Your task to perform on an android device: check out phone information Image 0: 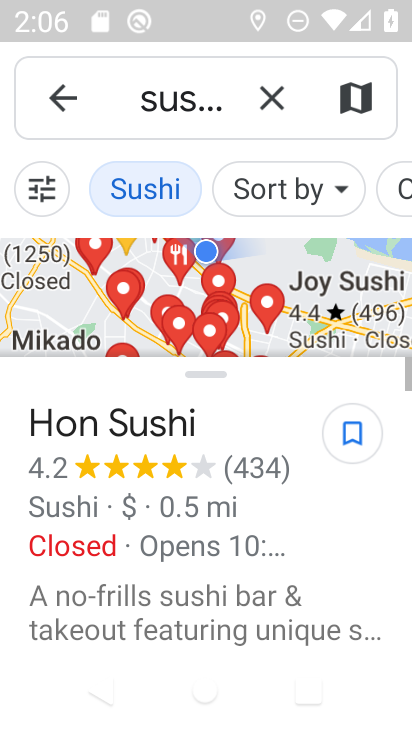
Step 0: press home button
Your task to perform on an android device: check out phone information Image 1: 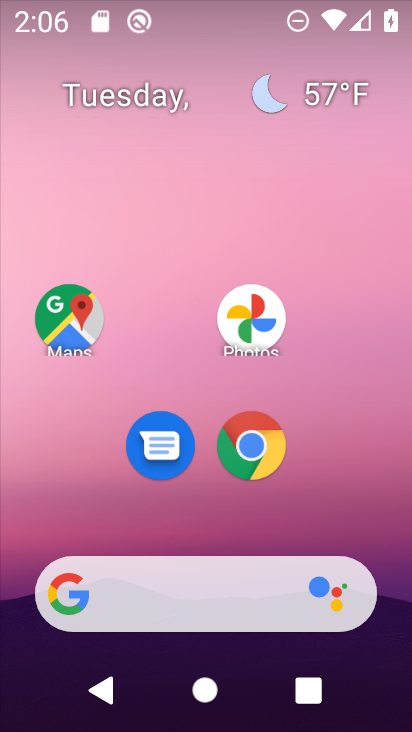
Step 1: drag from (380, 516) to (380, 227)
Your task to perform on an android device: check out phone information Image 2: 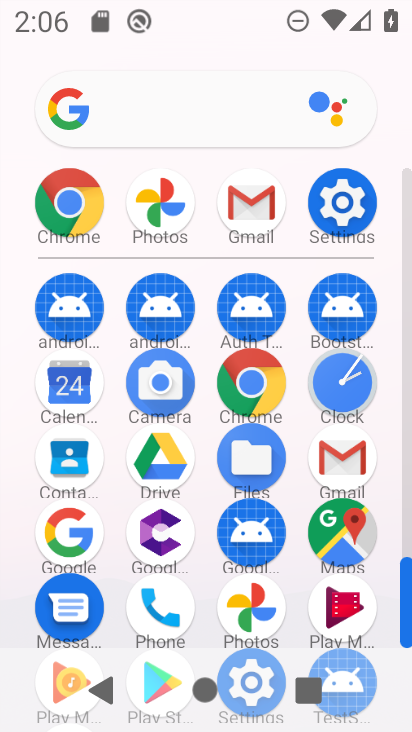
Step 2: click (177, 609)
Your task to perform on an android device: check out phone information Image 3: 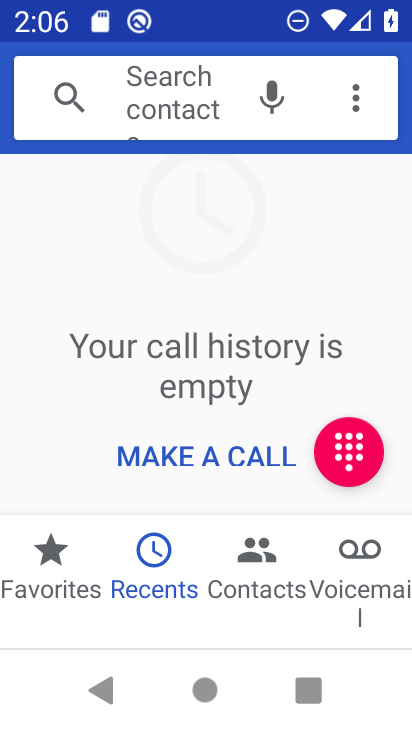
Step 3: click (74, 572)
Your task to perform on an android device: check out phone information Image 4: 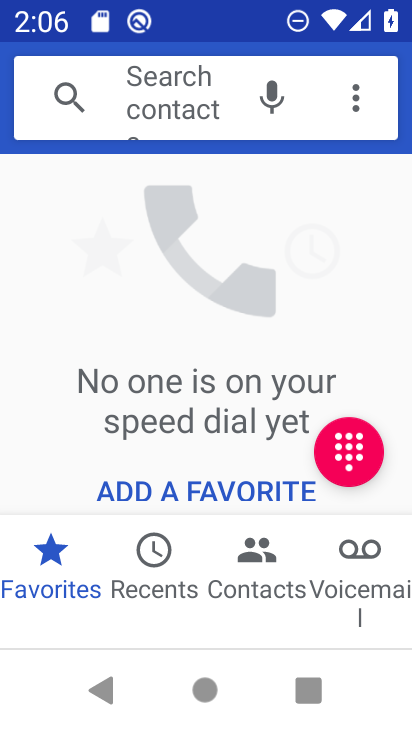
Step 4: click (118, 570)
Your task to perform on an android device: check out phone information Image 5: 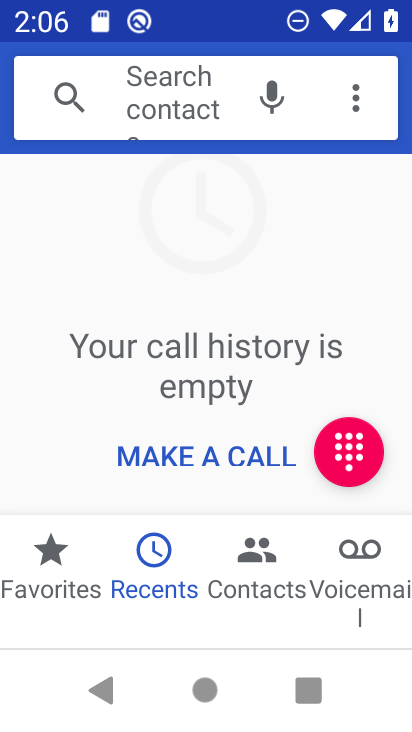
Step 5: click (67, 565)
Your task to perform on an android device: check out phone information Image 6: 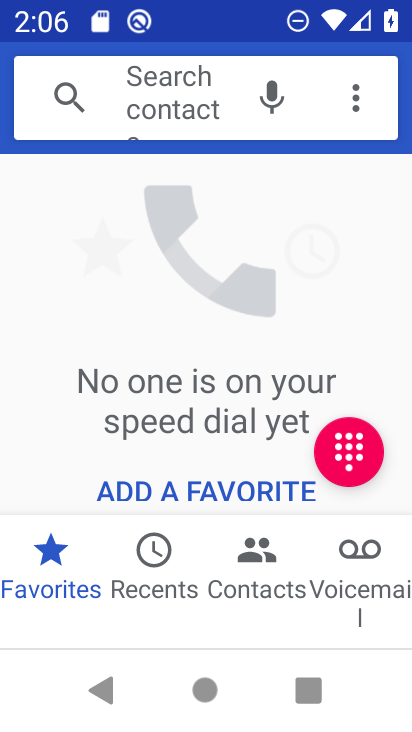
Step 6: click (135, 571)
Your task to perform on an android device: check out phone information Image 7: 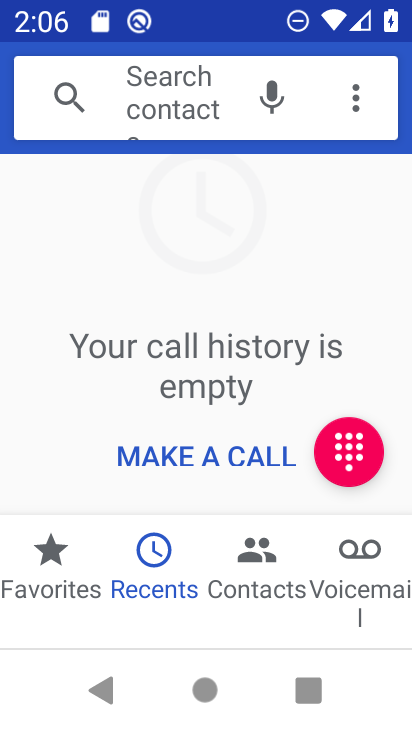
Step 7: task complete